Your task to perform on an android device: see creations saved in the google photos Image 0: 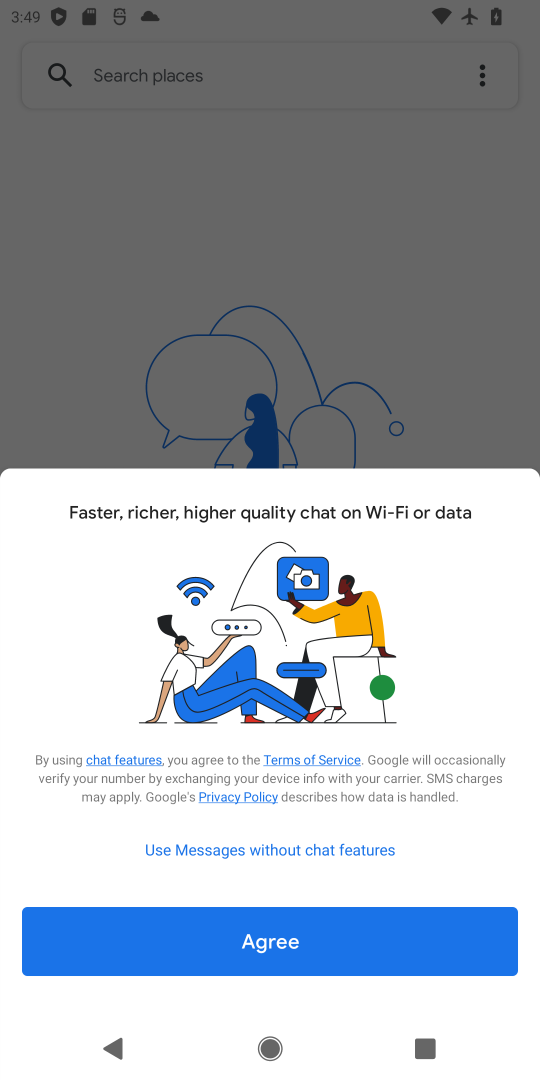
Step 0: press home button
Your task to perform on an android device: see creations saved in the google photos Image 1: 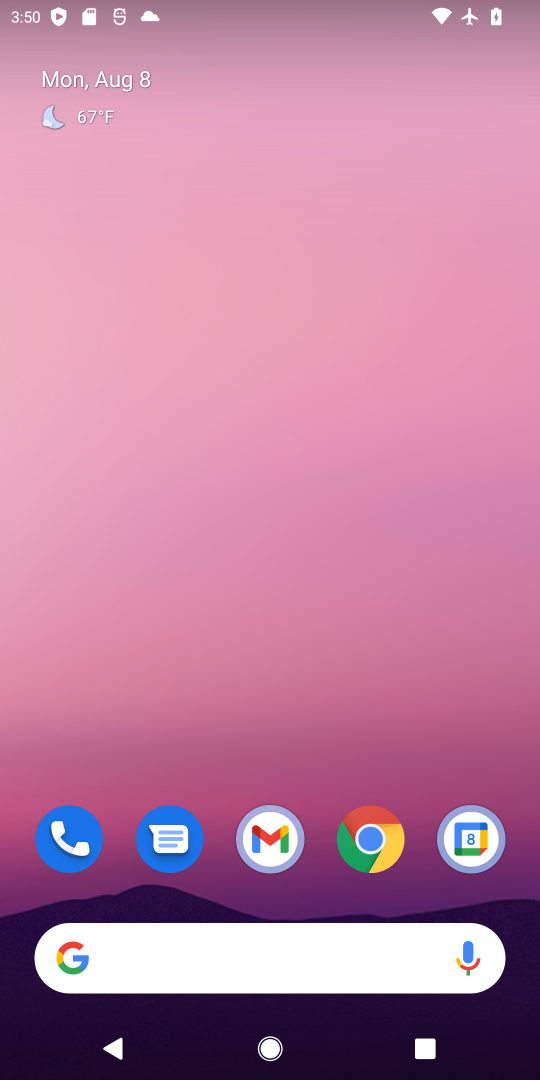
Step 1: drag from (416, 706) to (421, 274)
Your task to perform on an android device: see creations saved in the google photos Image 2: 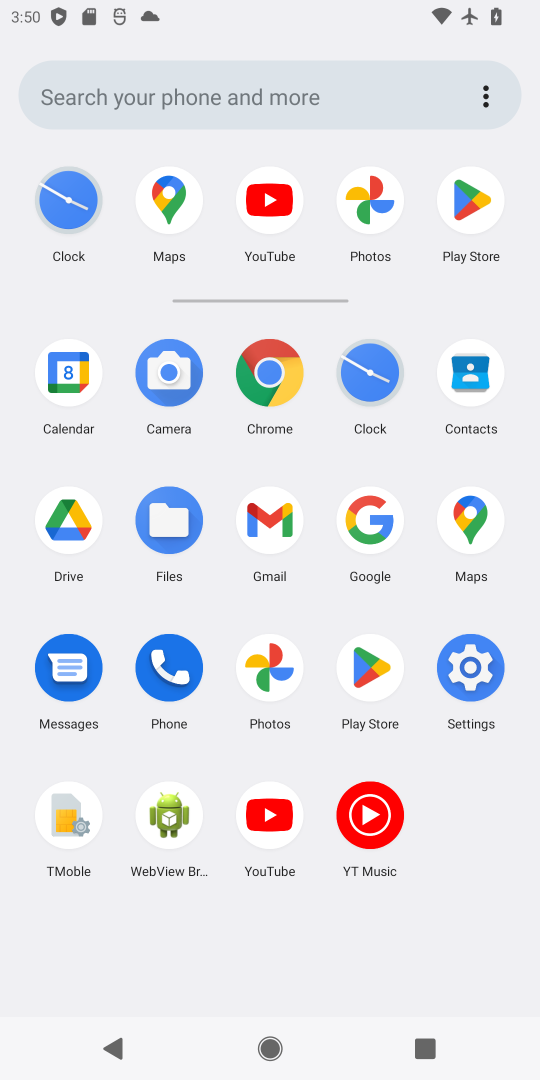
Step 2: click (270, 662)
Your task to perform on an android device: see creations saved in the google photos Image 3: 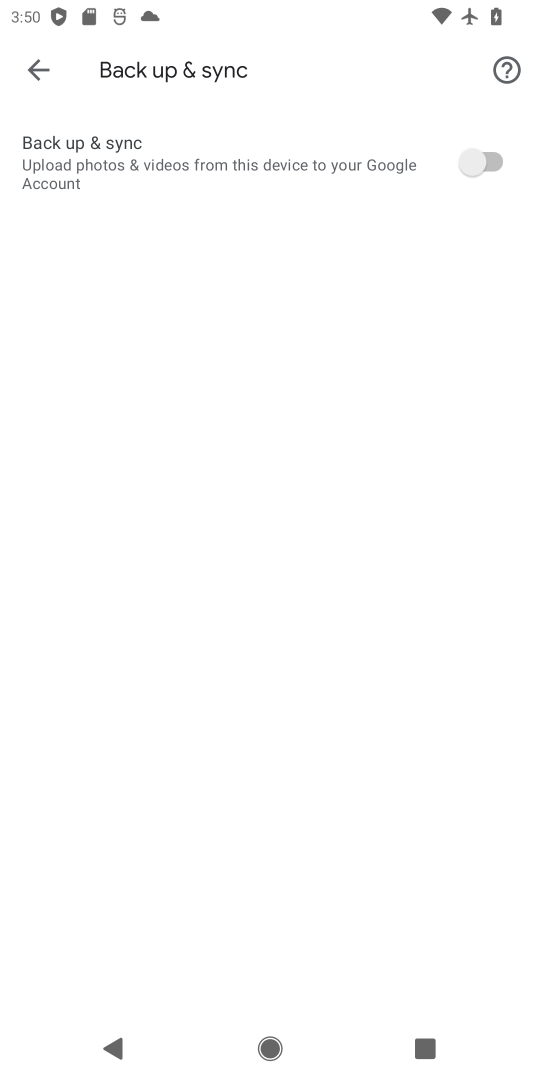
Step 3: press back button
Your task to perform on an android device: see creations saved in the google photos Image 4: 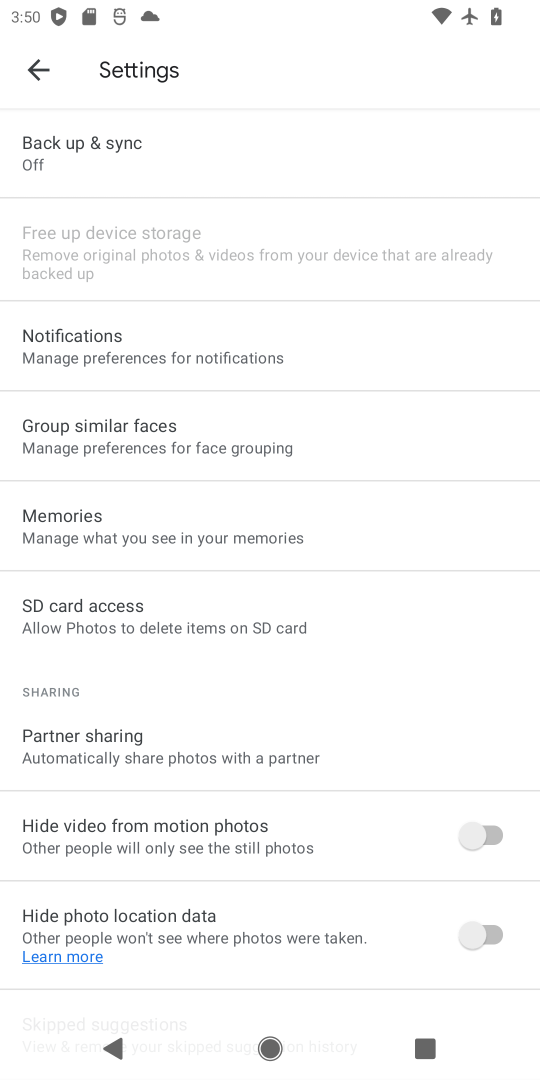
Step 4: press back button
Your task to perform on an android device: see creations saved in the google photos Image 5: 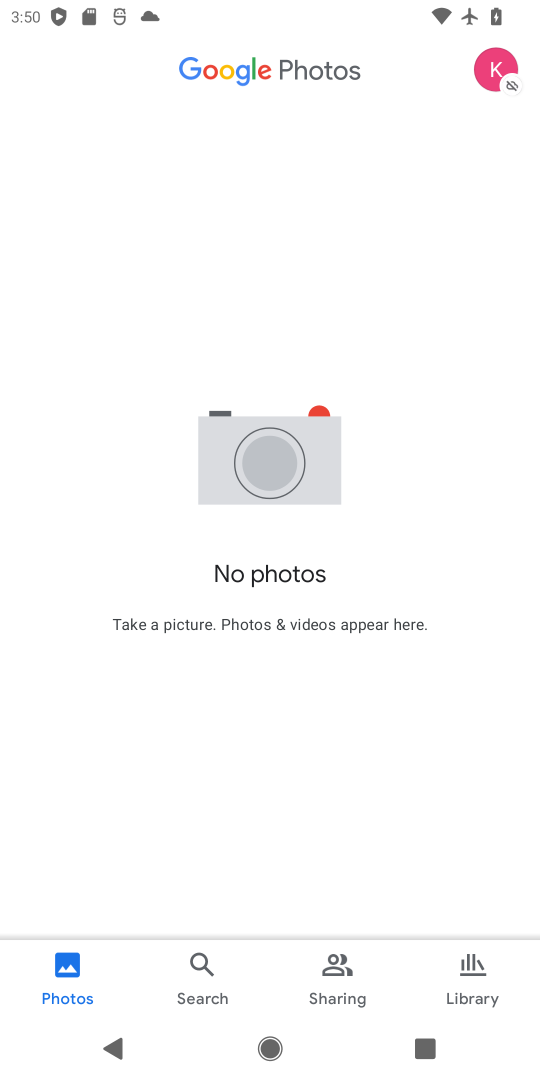
Step 5: click (189, 968)
Your task to perform on an android device: see creations saved in the google photos Image 6: 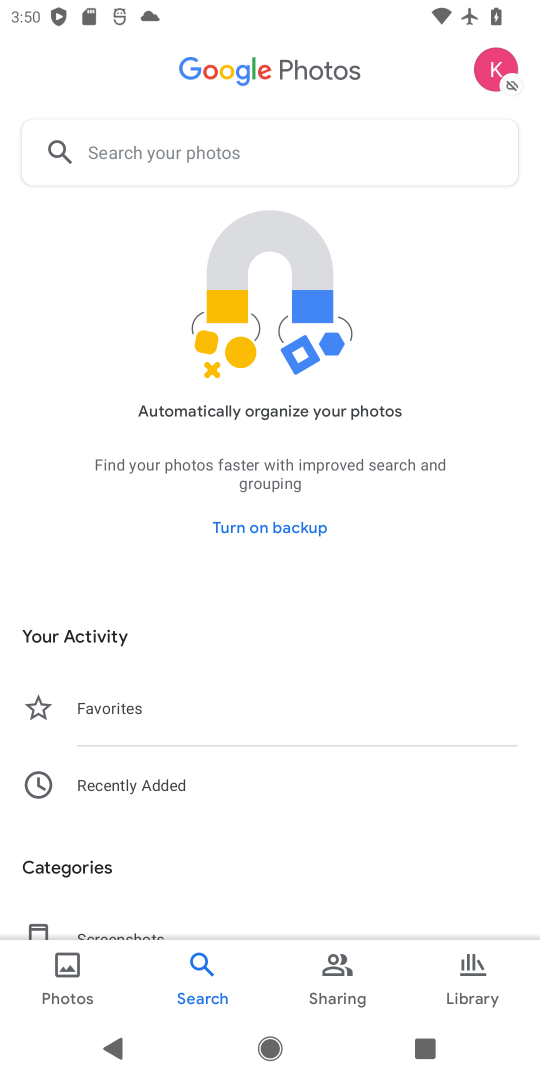
Step 6: drag from (429, 763) to (434, 510)
Your task to perform on an android device: see creations saved in the google photos Image 7: 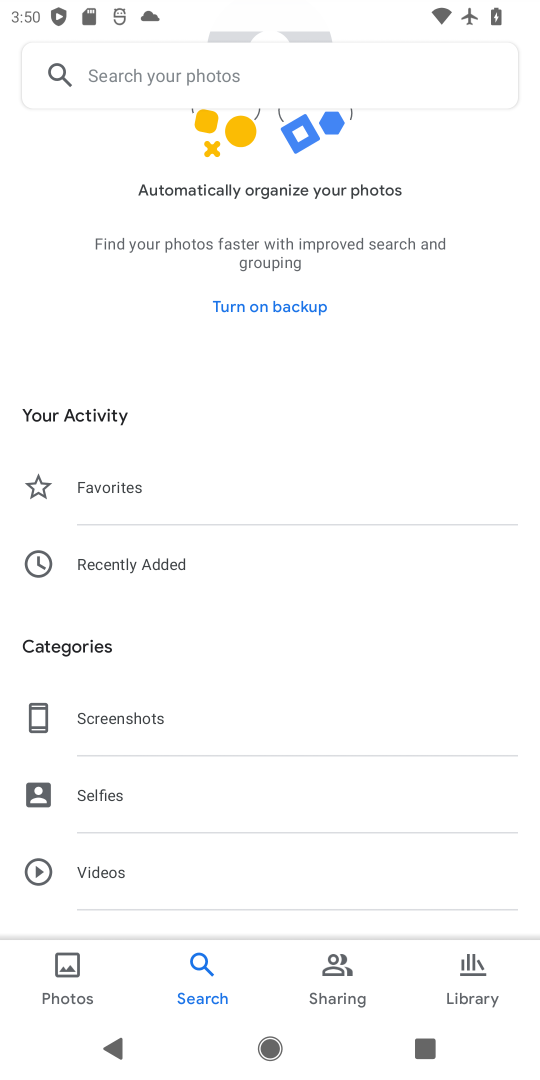
Step 7: drag from (390, 740) to (400, 442)
Your task to perform on an android device: see creations saved in the google photos Image 8: 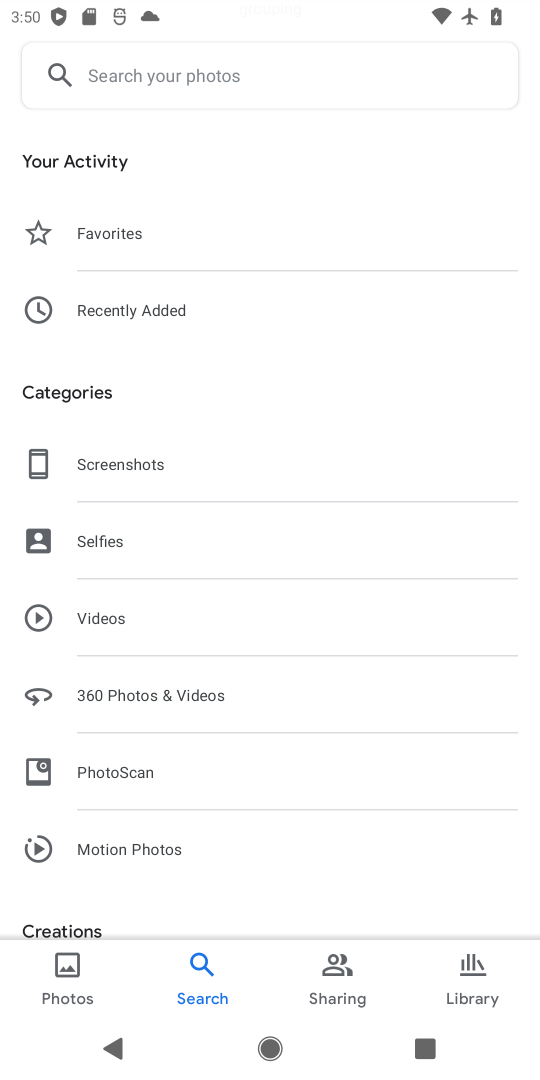
Step 8: drag from (379, 666) to (383, 444)
Your task to perform on an android device: see creations saved in the google photos Image 9: 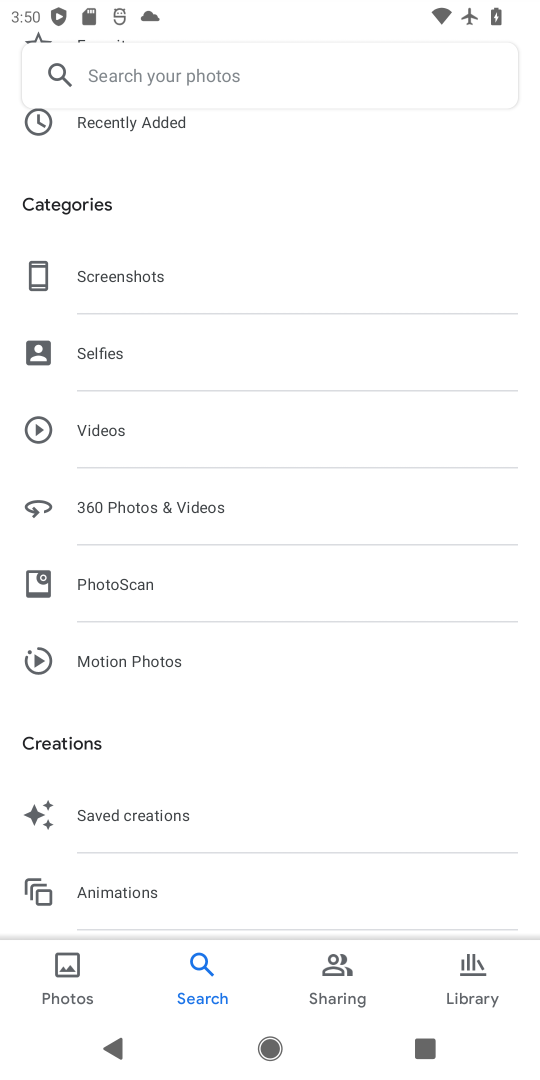
Step 9: drag from (368, 691) to (374, 421)
Your task to perform on an android device: see creations saved in the google photos Image 10: 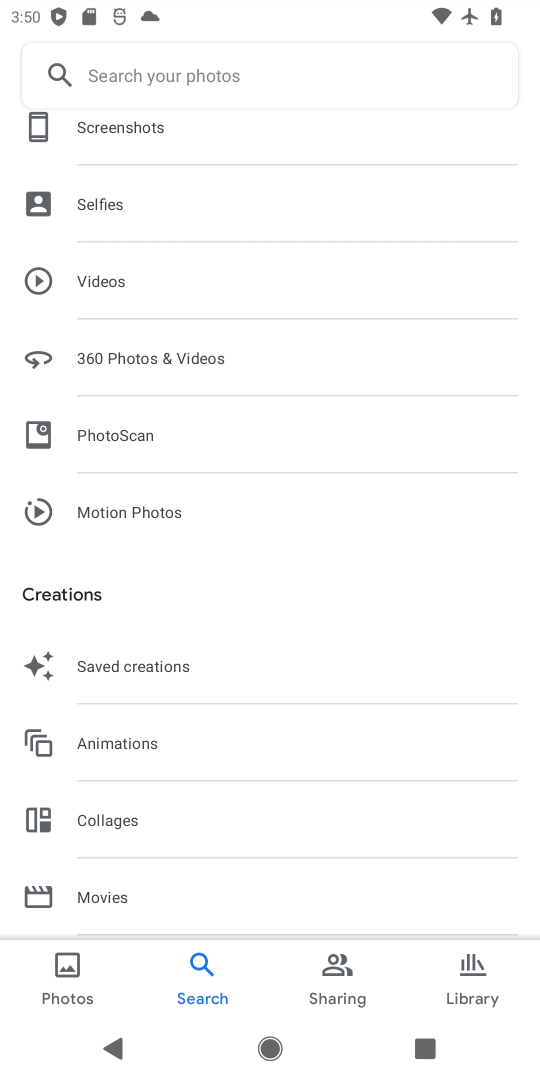
Step 10: click (325, 673)
Your task to perform on an android device: see creations saved in the google photos Image 11: 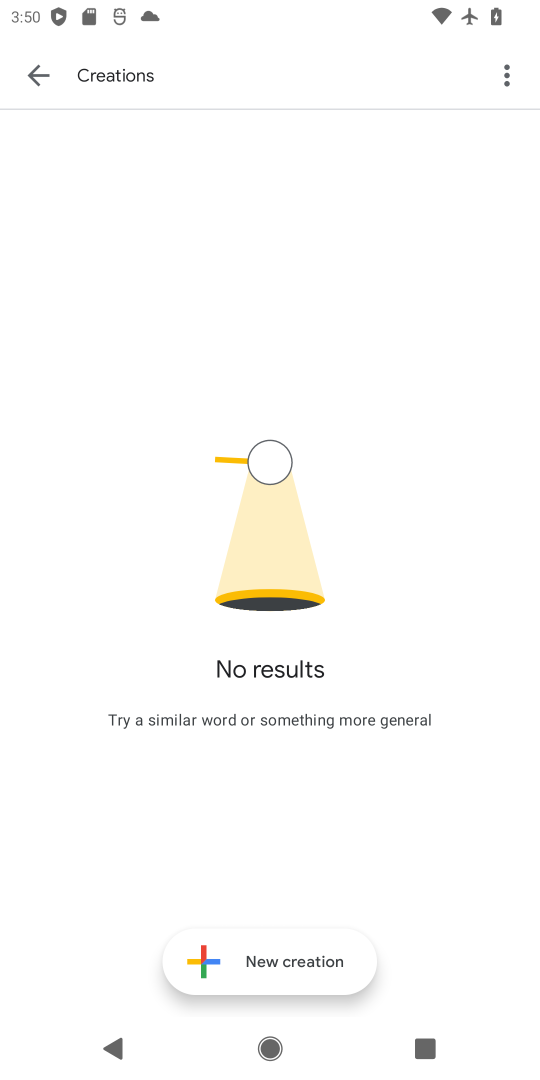
Step 11: task complete